Your task to perform on an android device: change timer sound Image 0: 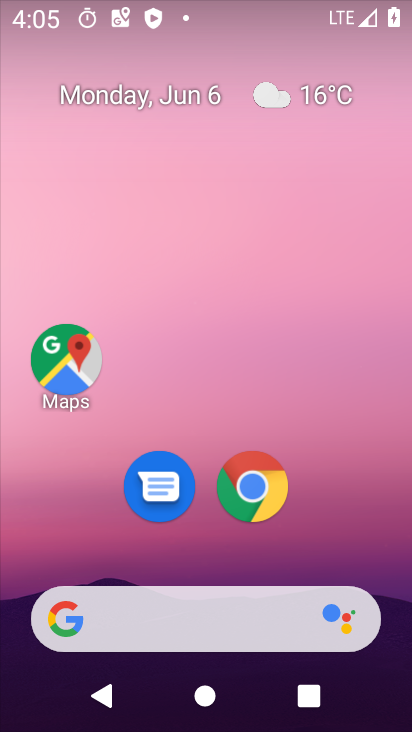
Step 0: drag from (363, 536) to (347, 119)
Your task to perform on an android device: change timer sound Image 1: 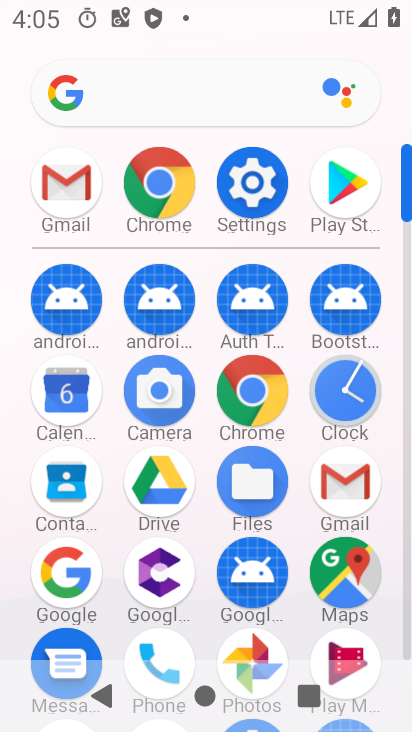
Step 1: click (352, 399)
Your task to perform on an android device: change timer sound Image 2: 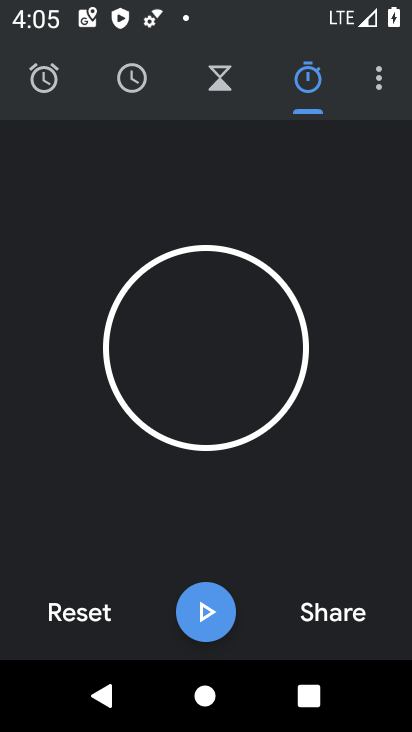
Step 2: drag from (376, 76) to (298, 176)
Your task to perform on an android device: change timer sound Image 3: 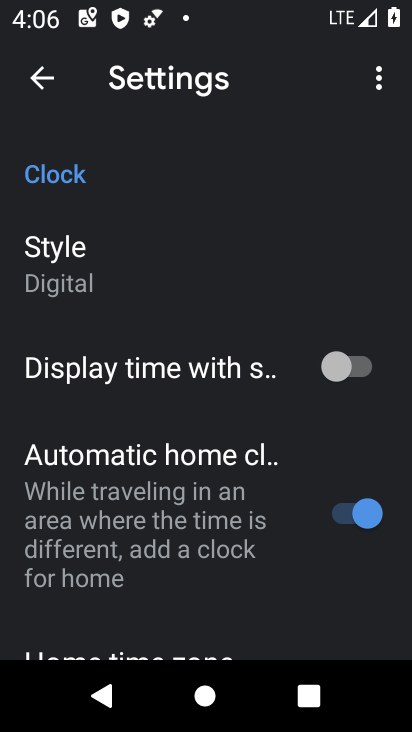
Step 3: drag from (268, 235) to (284, 158)
Your task to perform on an android device: change timer sound Image 4: 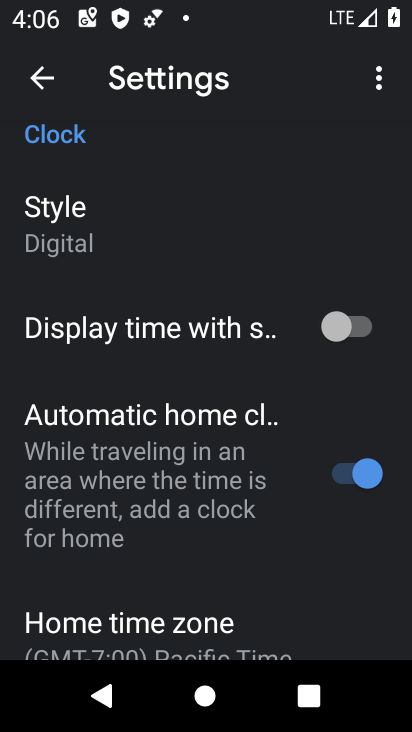
Step 4: drag from (211, 359) to (295, 107)
Your task to perform on an android device: change timer sound Image 5: 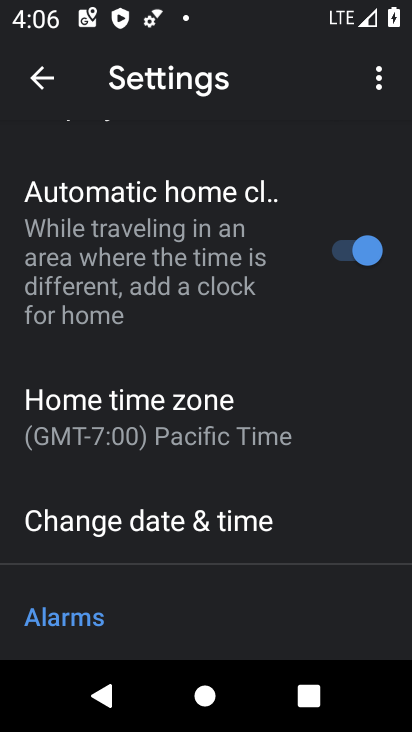
Step 5: drag from (192, 477) to (300, 167)
Your task to perform on an android device: change timer sound Image 6: 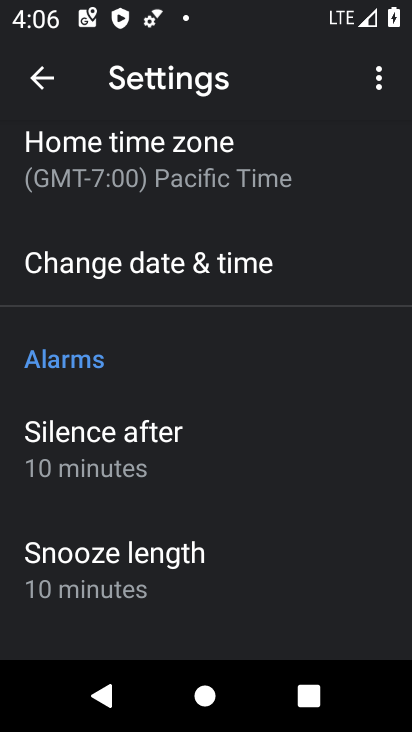
Step 6: drag from (254, 558) to (386, 162)
Your task to perform on an android device: change timer sound Image 7: 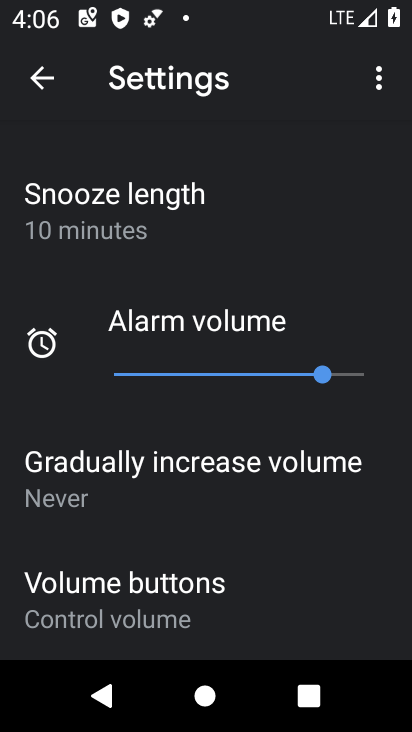
Step 7: drag from (280, 575) to (347, 159)
Your task to perform on an android device: change timer sound Image 8: 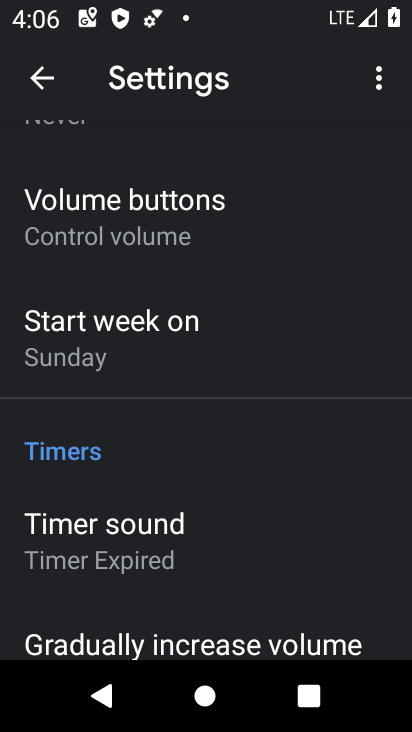
Step 8: click (123, 537)
Your task to perform on an android device: change timer sound Image 9: 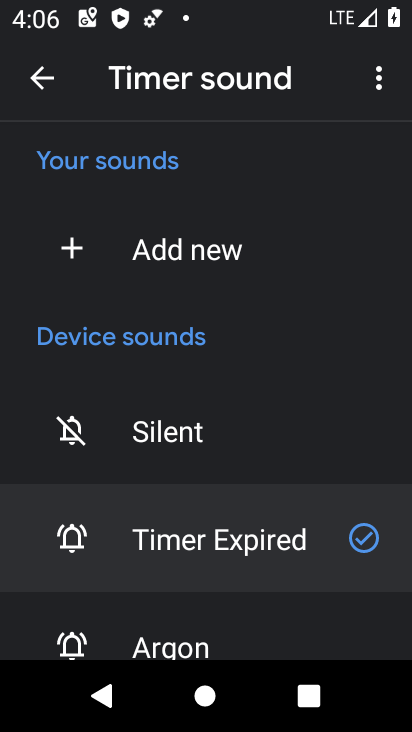
Step 9: click (193, 645)
Your task to perform on an android device: change timer sound Image 10: 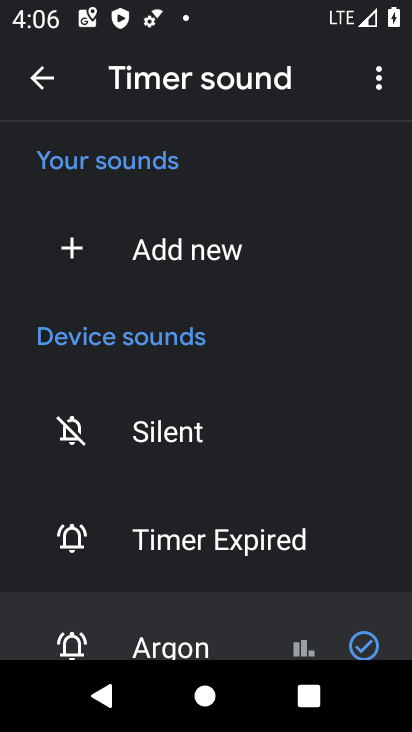
Step 10: task complete